Your task to perform on an android device: Go to Amazon Image 0: 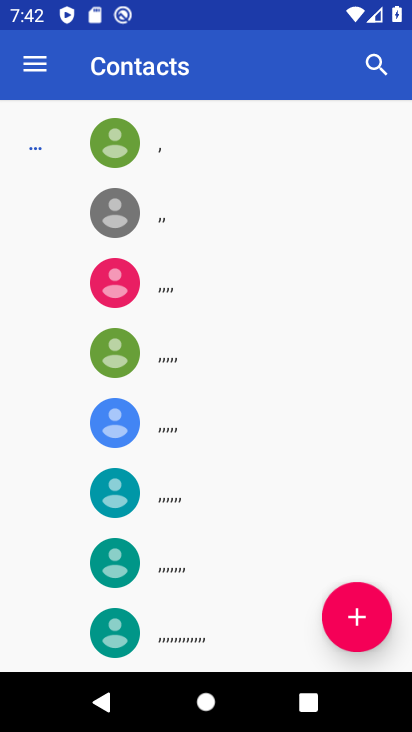
Step 0: drag from (213, 595) to (344, 253)
Your task to perform on an android device: Go to Amazon Image 1: 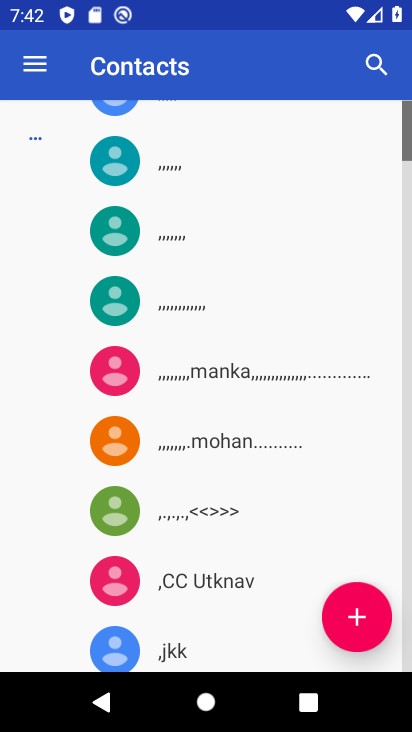
Step 1: task complete